Your task to perform on an android device: turn vacation reply on in the gmail app Image 0: 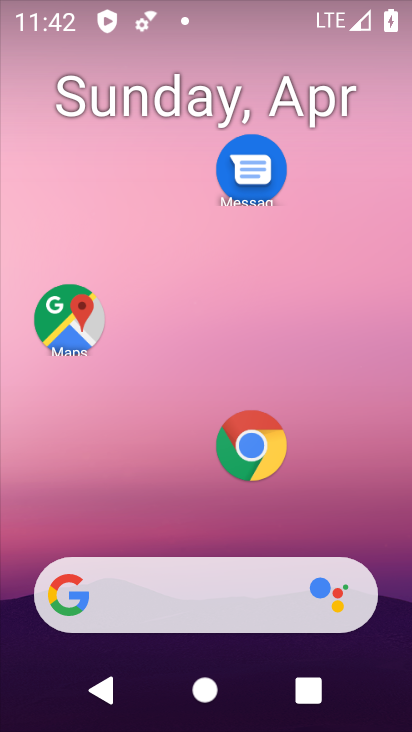
Step 0: drag from (164, 603) to (319, 121)
Your task to perform on an android device: turn vacation reply on in the gmail app Image 1: 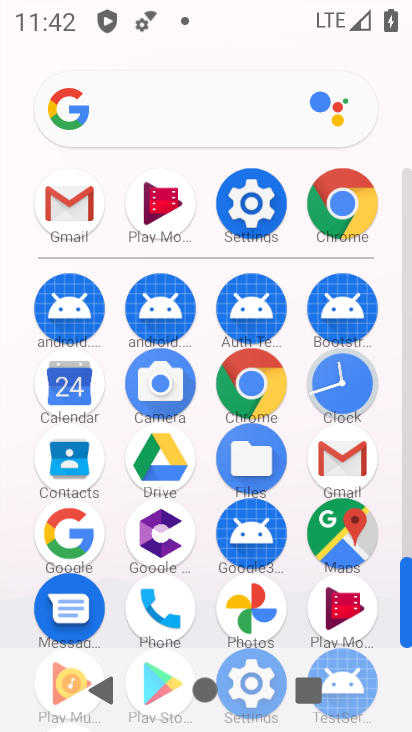
Step 1: click (350, 464)
Your task to perform on an android device: turn vacation reply on in the gmail app Image 2: 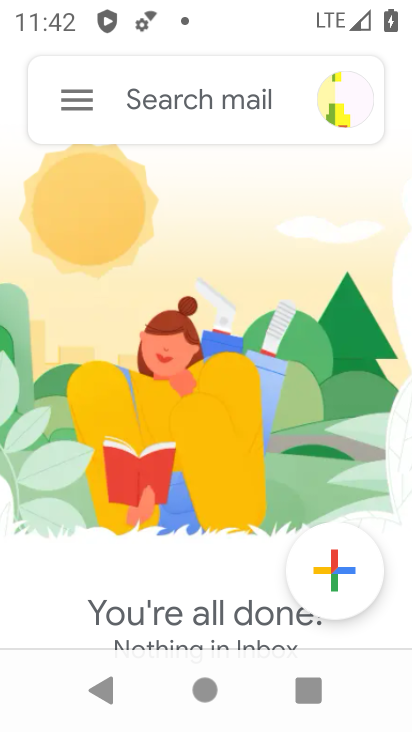
Step 2: click (84, 98)
Your task to perform on an android device: turn vacation reply on in the gmail app Image 3: 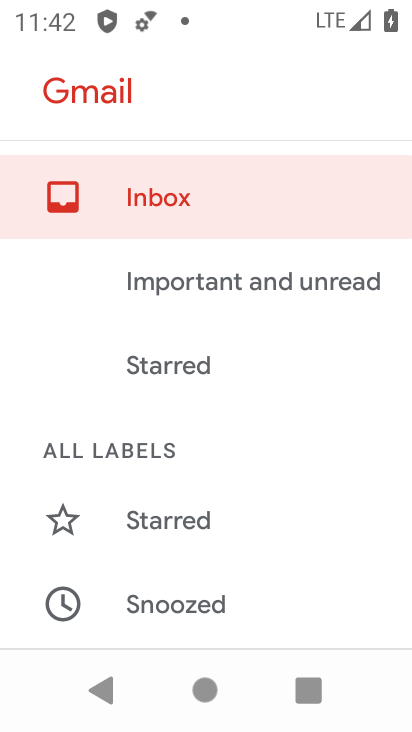
Step 3: drag from (177, 578) to (251, 130)
Your task to perform on an android device: turn vacation reply on in the gmail app Image 4: 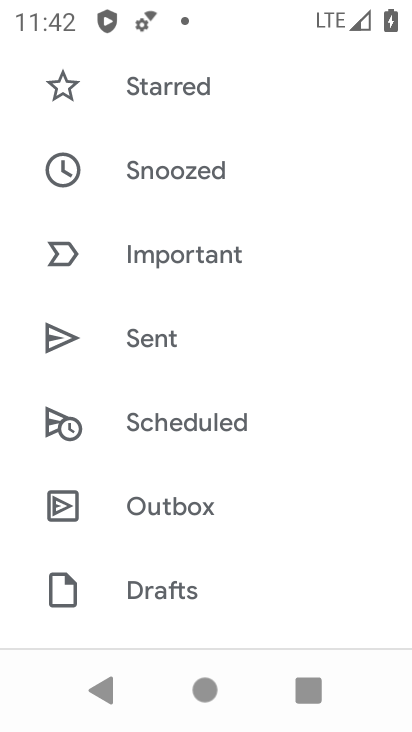
Step 4: drag from (215, 535) to (332, 20)
Your task to perform on an android device: turn vacation reply on in the gmail app Image 5: 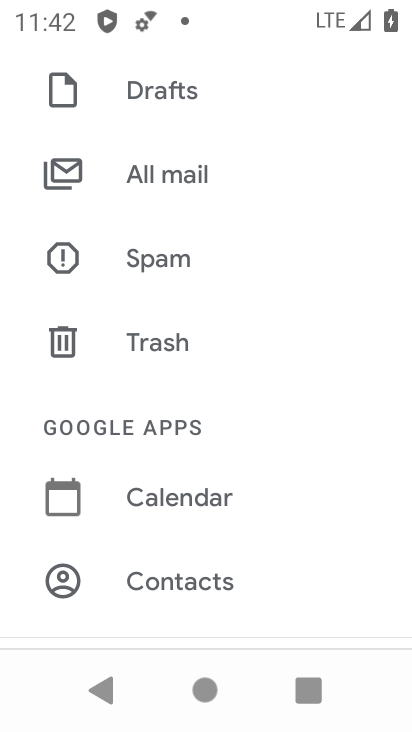
Step 5: drag from (238, 493) to (313, 174)
Your task to perform on an android device: turn vacation reply on in the gmail app Image 6: 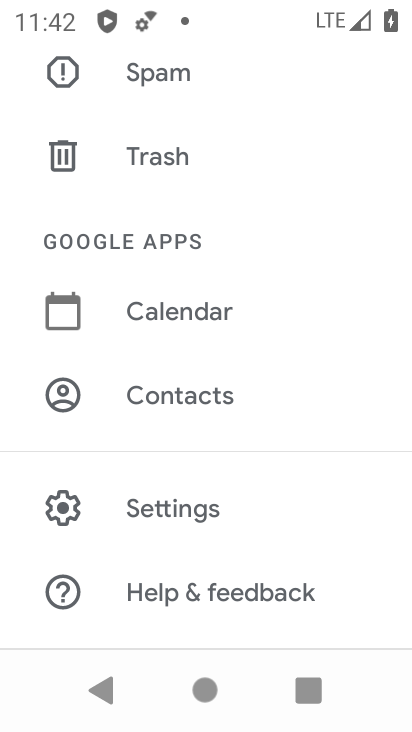
Step 6: click (174, 513)
Your task to perform on an android device: turn vacation reply on in the gmail app Image 7: 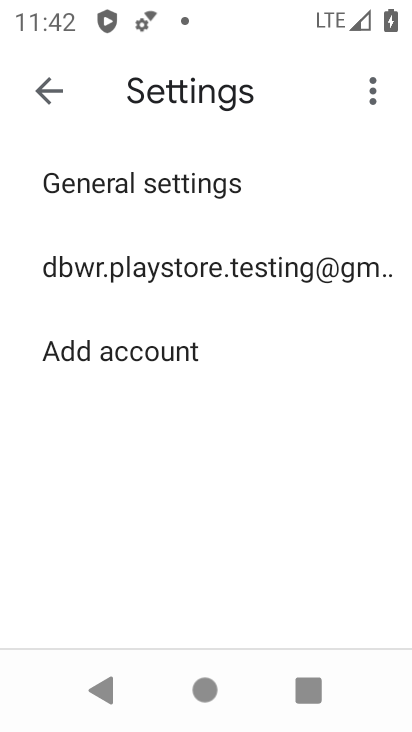
Step 7: click (268, 271)
Your task to perform on an android device: turn vacation reply on in the gmail app Image 8: 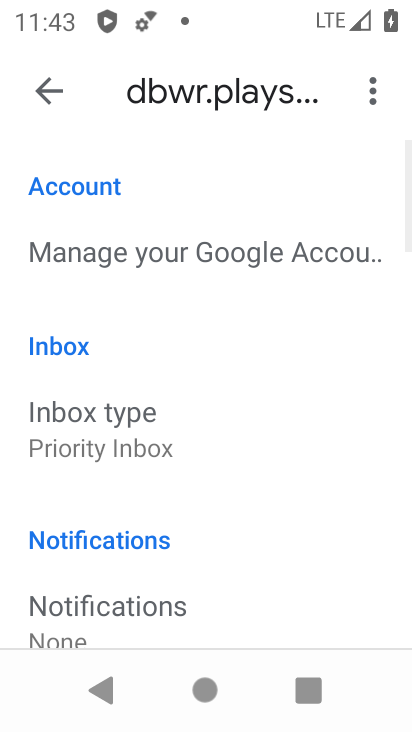
Step 8: drag from (218, 592) to (324, 78)
Your task to perform on an android device: turn vacation reply on in the gmail app Image 9: 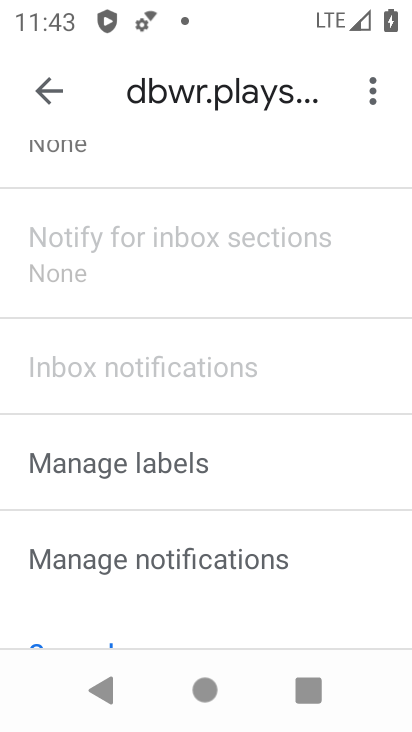
Step 9: drag from (142, 599) to (265, 85)
Your task to perform on an android device: turn vacation reply on in the gmail app Image 10: 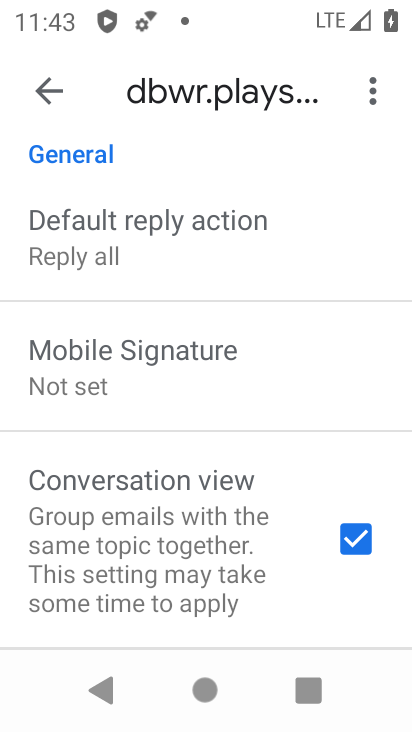
Step 10: drag from (179, 621) to (290, 87)
Your task to perform on an android device: turn vacation reply on in the gmail app Image 11: 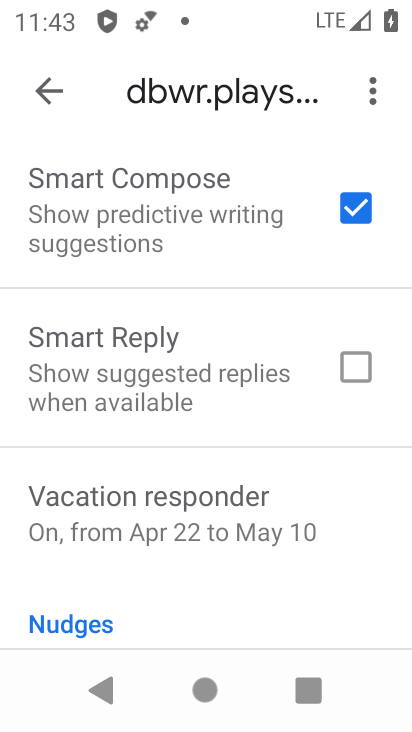
Step 11: click (197, 490)
Your task to perform on an android device: turn vacation reply on in the gmail app Image 12: 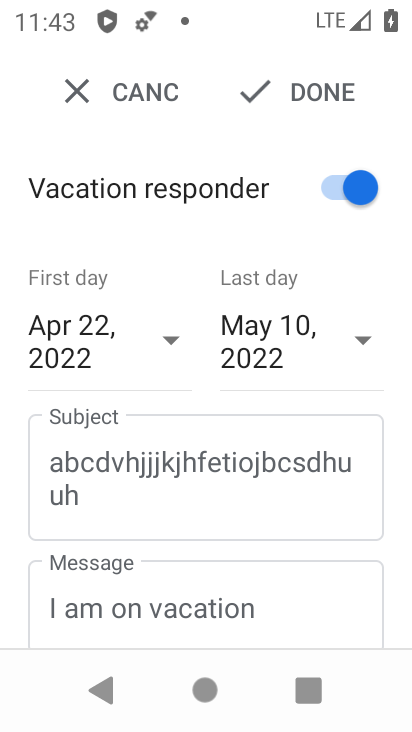
Step 12: task complete